Your task to perform on an android device: set the stopwatch Image 0: 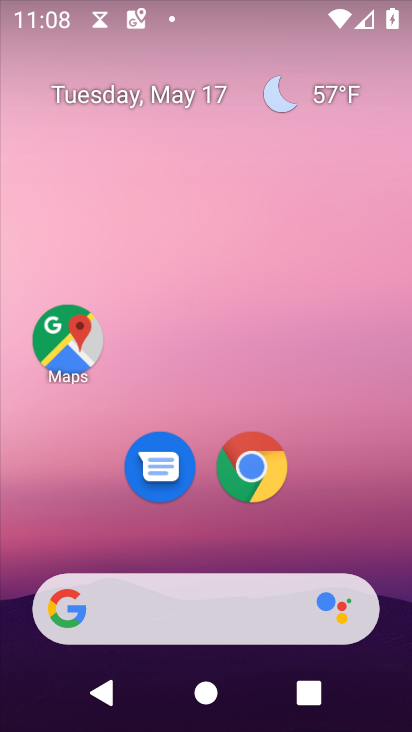
Step 0: drag from (159, 572) to (225, 115)
Your task to perform on an android device: set the stopwatch Image 1: 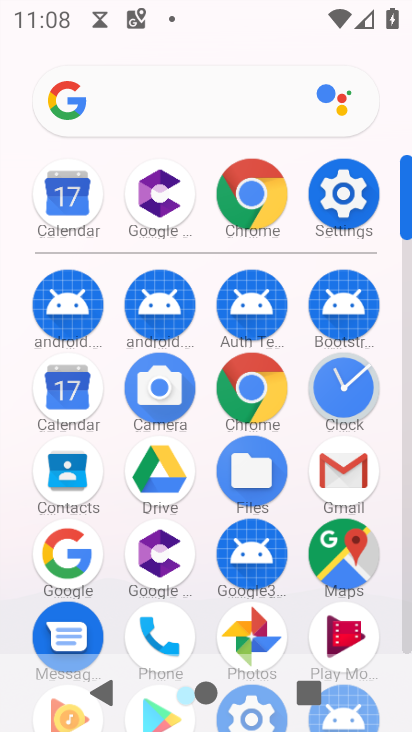
Step 1: click (352, 402)
Your task to perform on an android device: set the stopwatch Image 2: 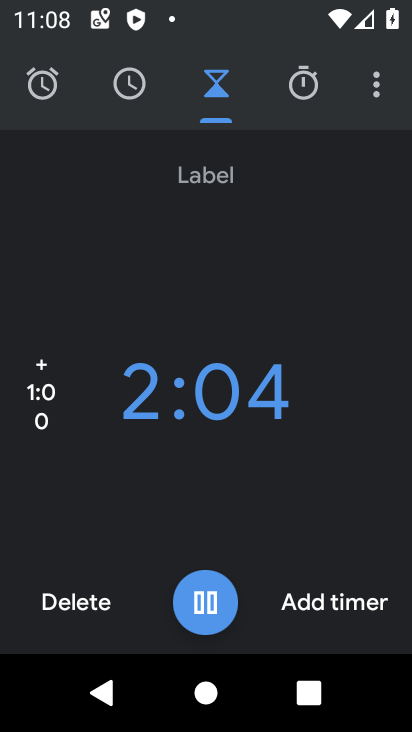
Step 2: click (289, 93)
Your task to perform on an android device: set the stopwatch Image 3: 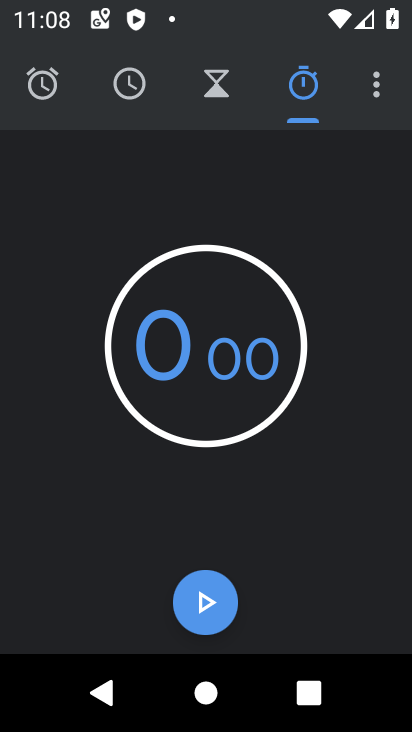
Step 3: click (204, 360)
Your task to perform on an android device: set the stopwatch Image 4: 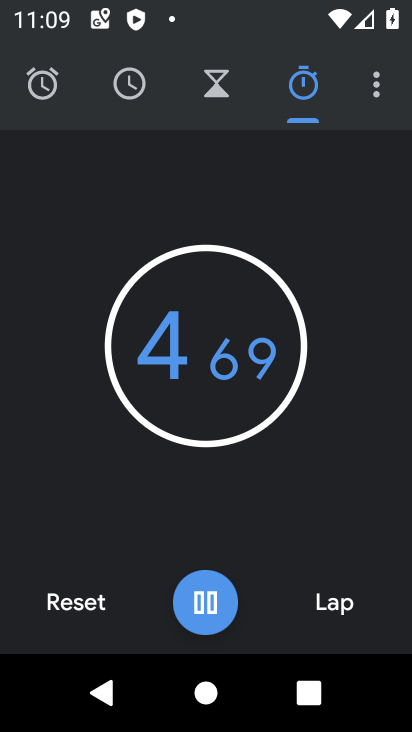
Step 4: click (200, 604)
Your task to perform on an android device: set the stopwatch Image 5: 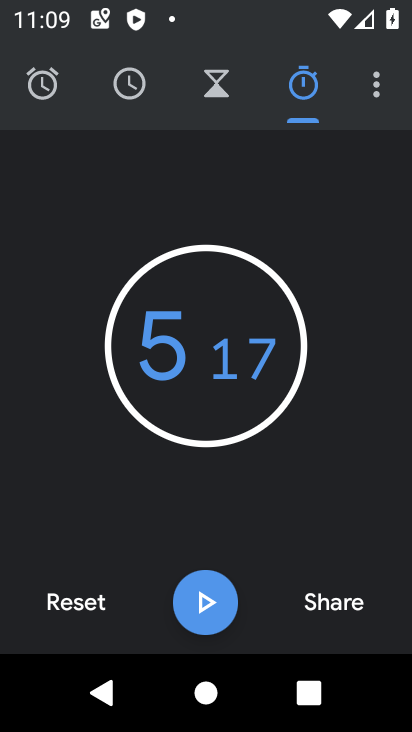
Step 5: task complete